Your task to perform on an android device: check out phone information Image 0: 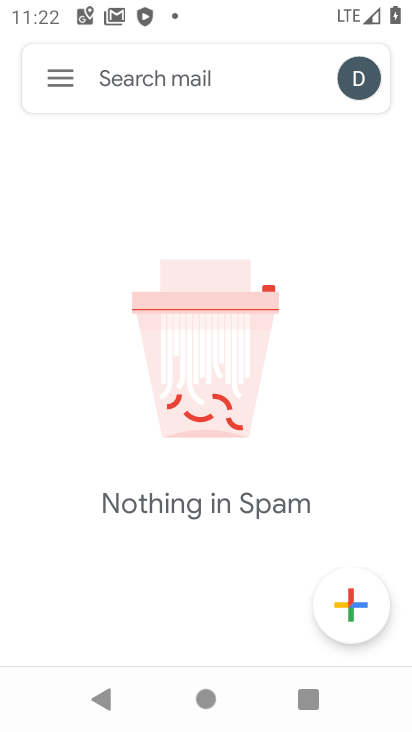
Step 0: press home button
Your task to perform on an android device: check out phone information Image 1: 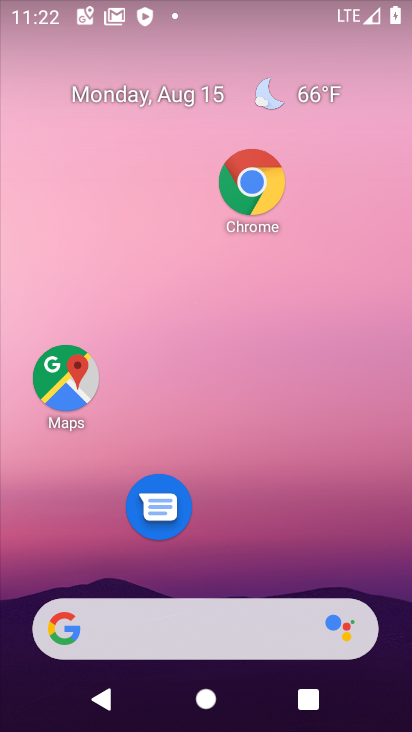
Step 1: drag from (233, 589) to (205, 28)
Your task to perform on an android device: check out phone information Image 2: 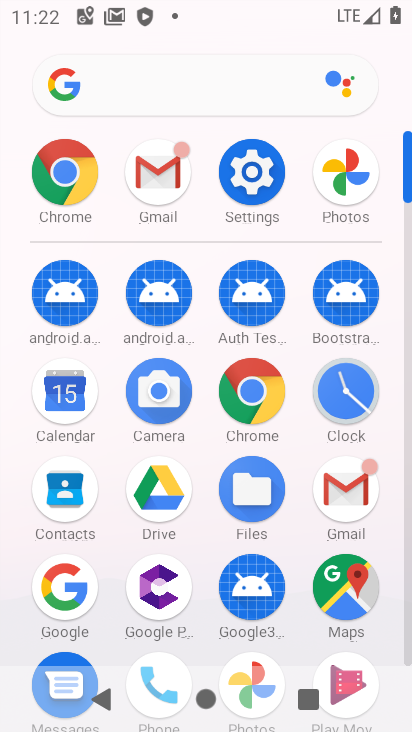
Step 2: click (260, 157)
Your task to perform on an android device: check out phone information Image 3: 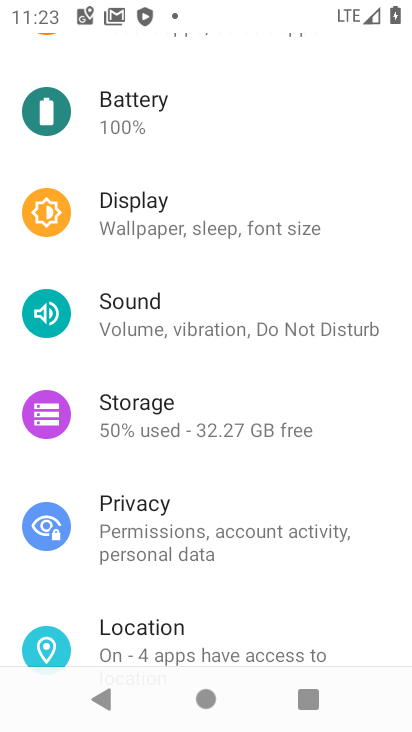
Step 3: task complete